Your task to perform on an android device: turn off improve location accuracy Image 0: 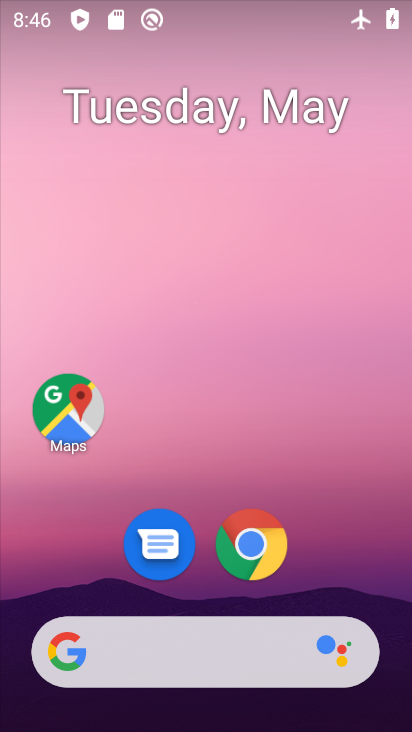
Step 0: drag from (330, 552) to (312, 169)
Your task to perform on an android device: turn off improve location accuracy Image 1: 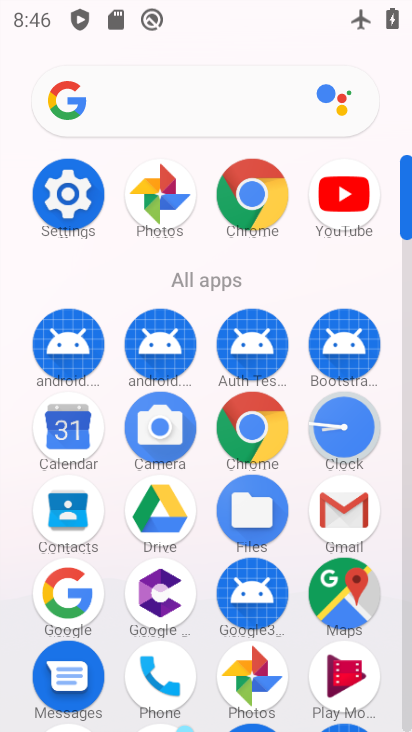
Step 1: click (83, 187)
Your task to perform on an android device: turn off improve location accuracy Image 2: 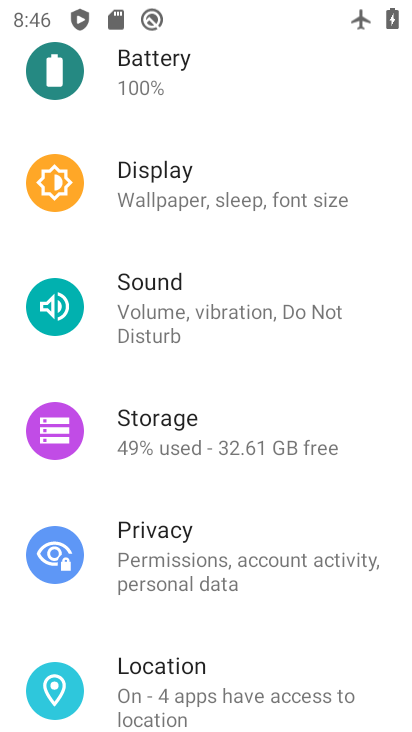
Step 2: drag from (291, 688) to (303, 317)
Your task to perform on an android device: turn off improve location accuracy Image 3: 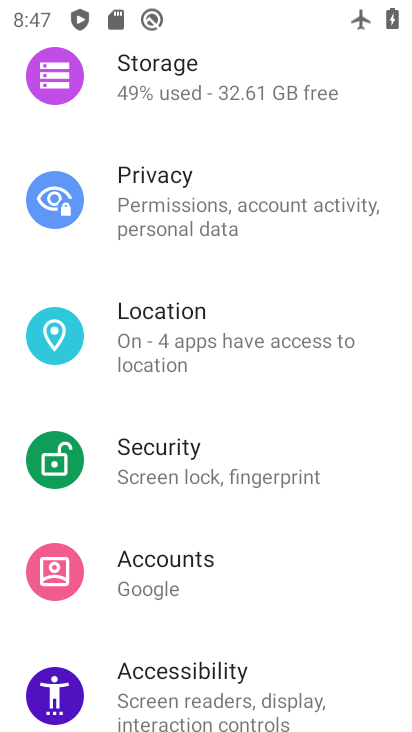
Step 3: click (252, 345)
Your task to perform on an android device: turn off improve location accuracy Image 4: 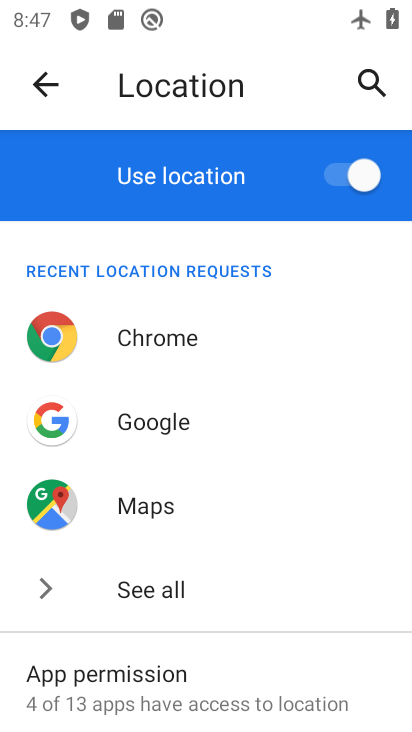
Step 4: drag from (288, 651) to (263, 204)
Your task to perform on an android device: turn off improve location accuracy Image 5: 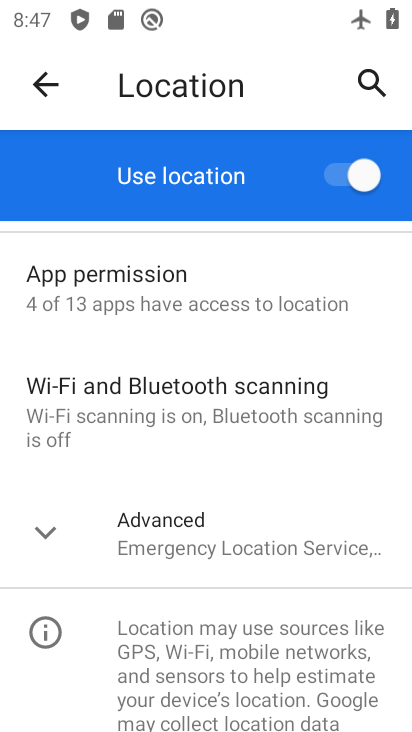
Step 5: click (229, 543)
Your task to perform on an android device: turn off improve location accuracy Image 6: 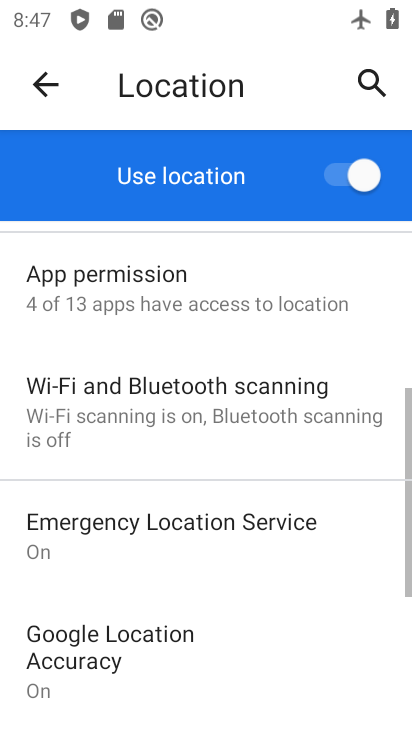
Step 6: drag from (214, 674) to (195, 438)
Your task to perform on an android device: turn off improve location accuracy Image 7: 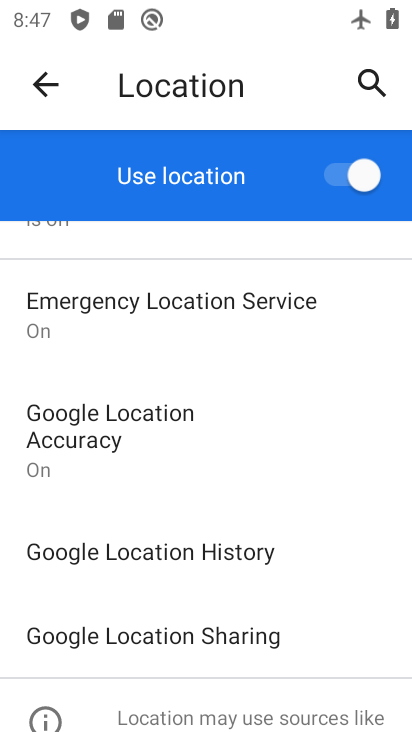
Step 7: click (149, 432)
Your task to perform on an android device: turn off improve location accuracy Image 8: 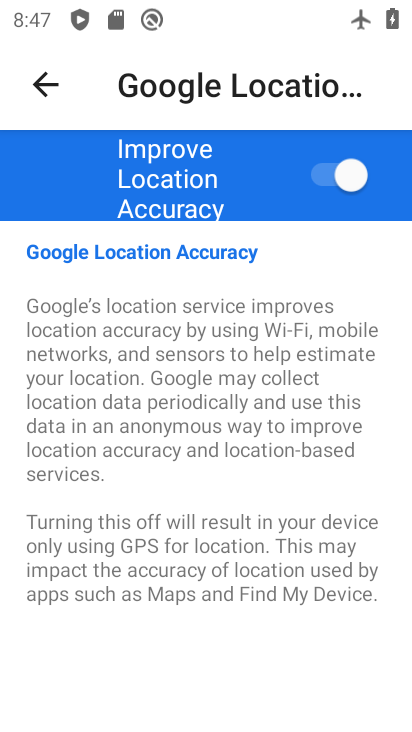
Step 8: click (345, 171)
Your task to perform on an android device: turn off improve location accuracy Image 9: 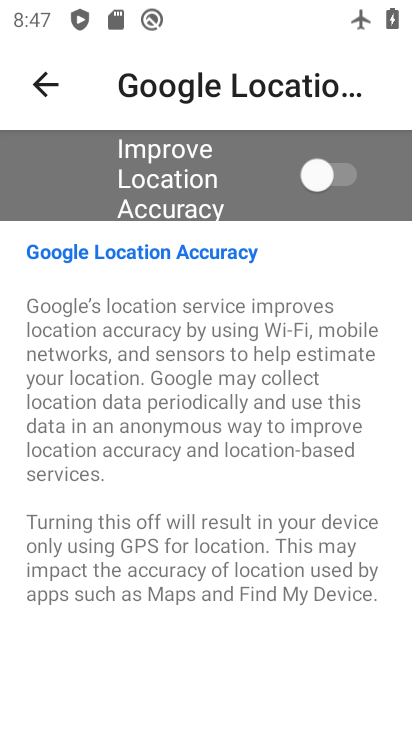
Step 9: task complete